Your task to perform on an android device: check google app version Image 0: 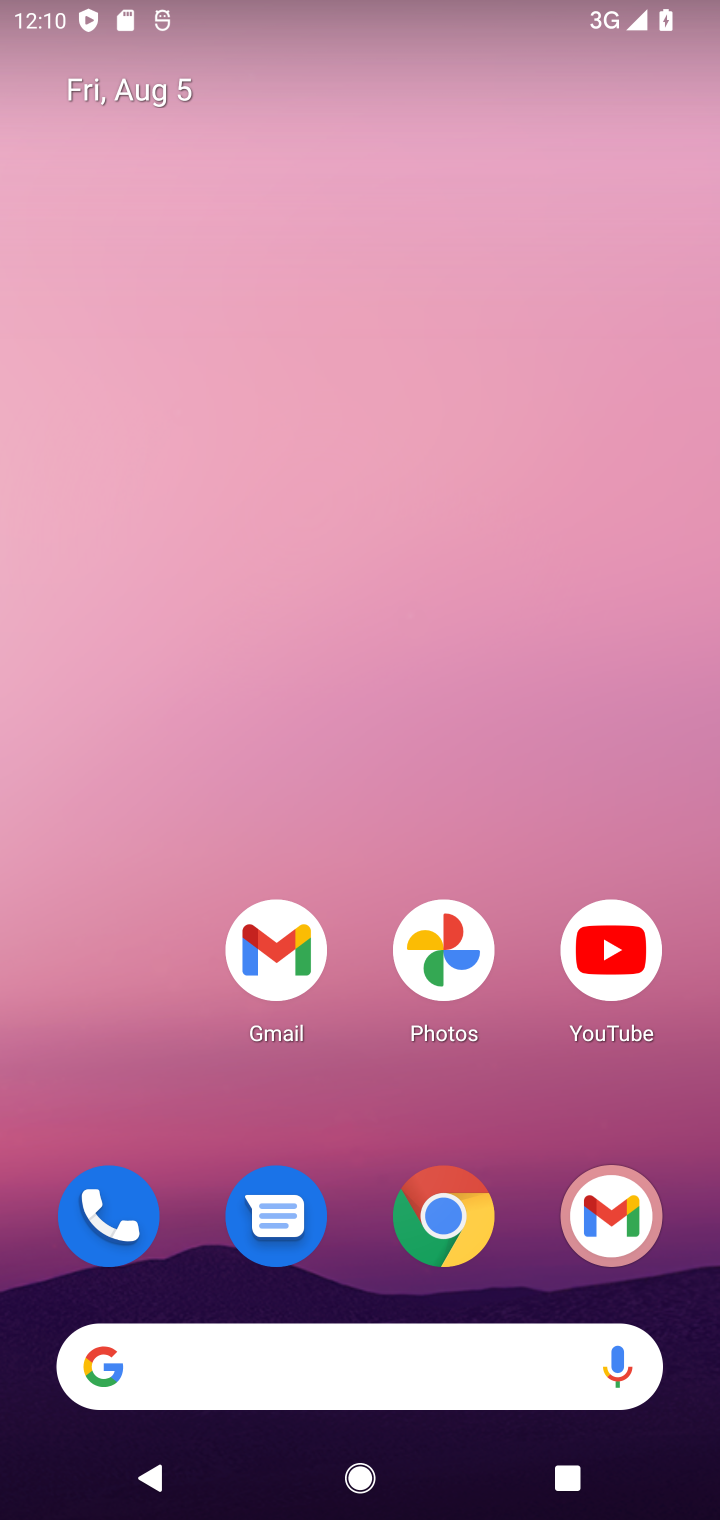
Step 0: drag from (418, 1345) to (326, 24)
Your task to perform on an android device: check google app version Image 1: 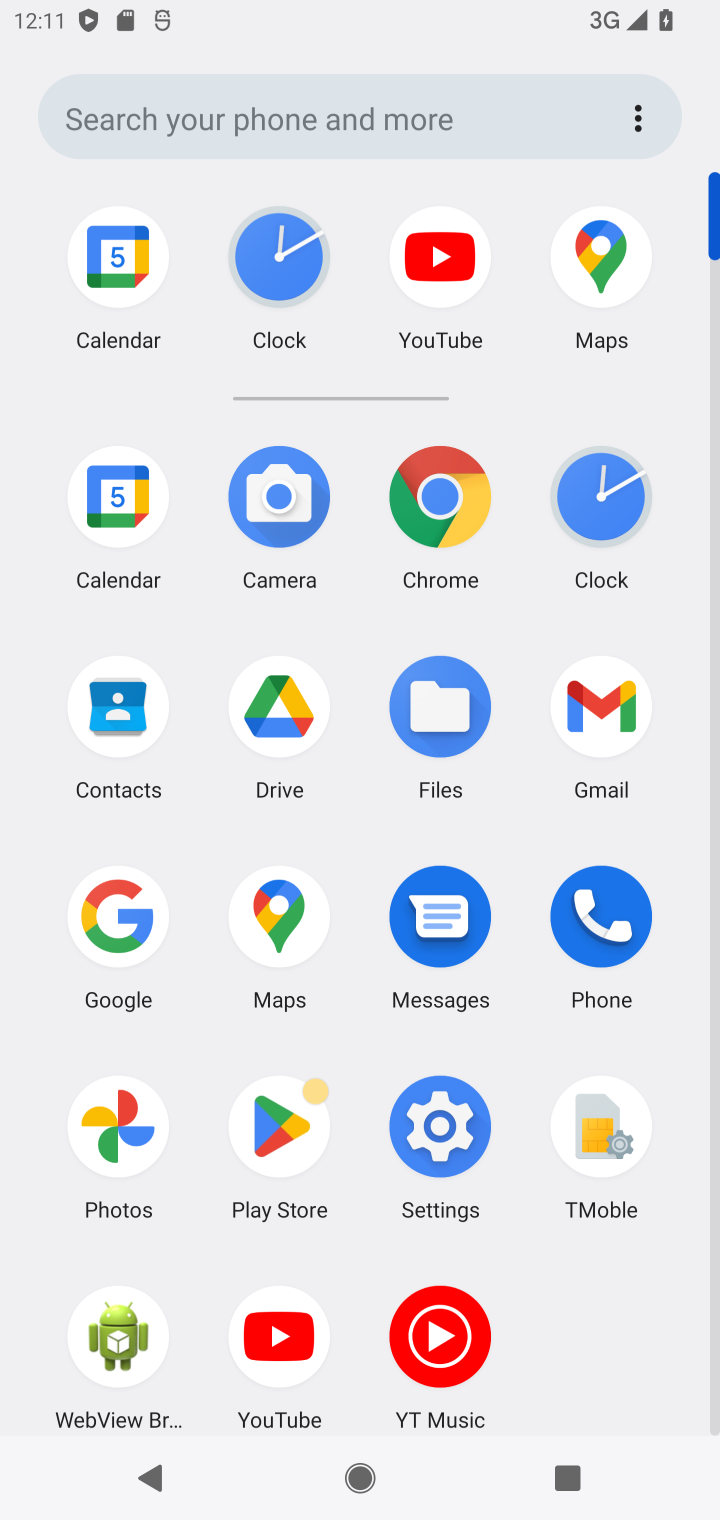
Step 1: click (473, 525)
Your task to perform on an android device: check google app version Image 2: 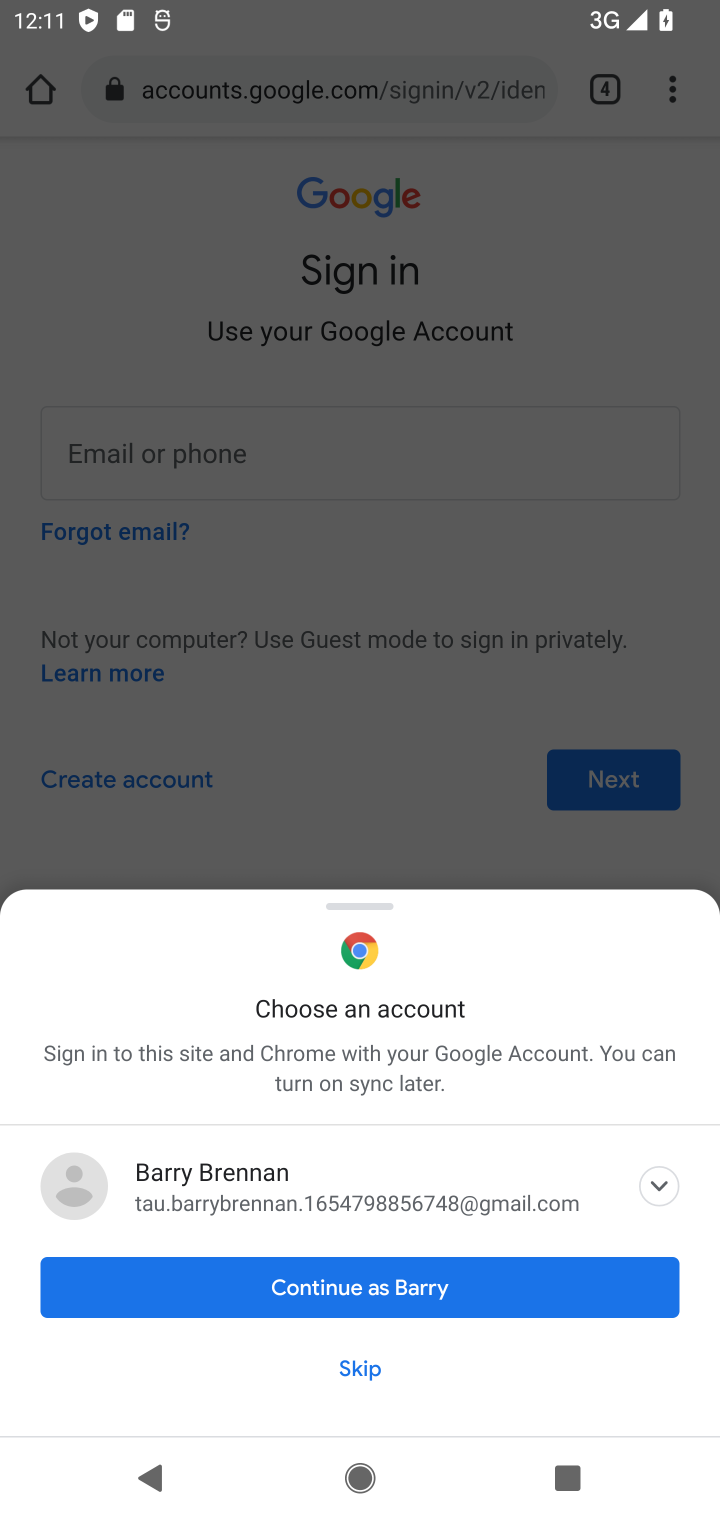
Step 2: click (368, 1358)
Your task to perform on an android device: check google app version Image 3: 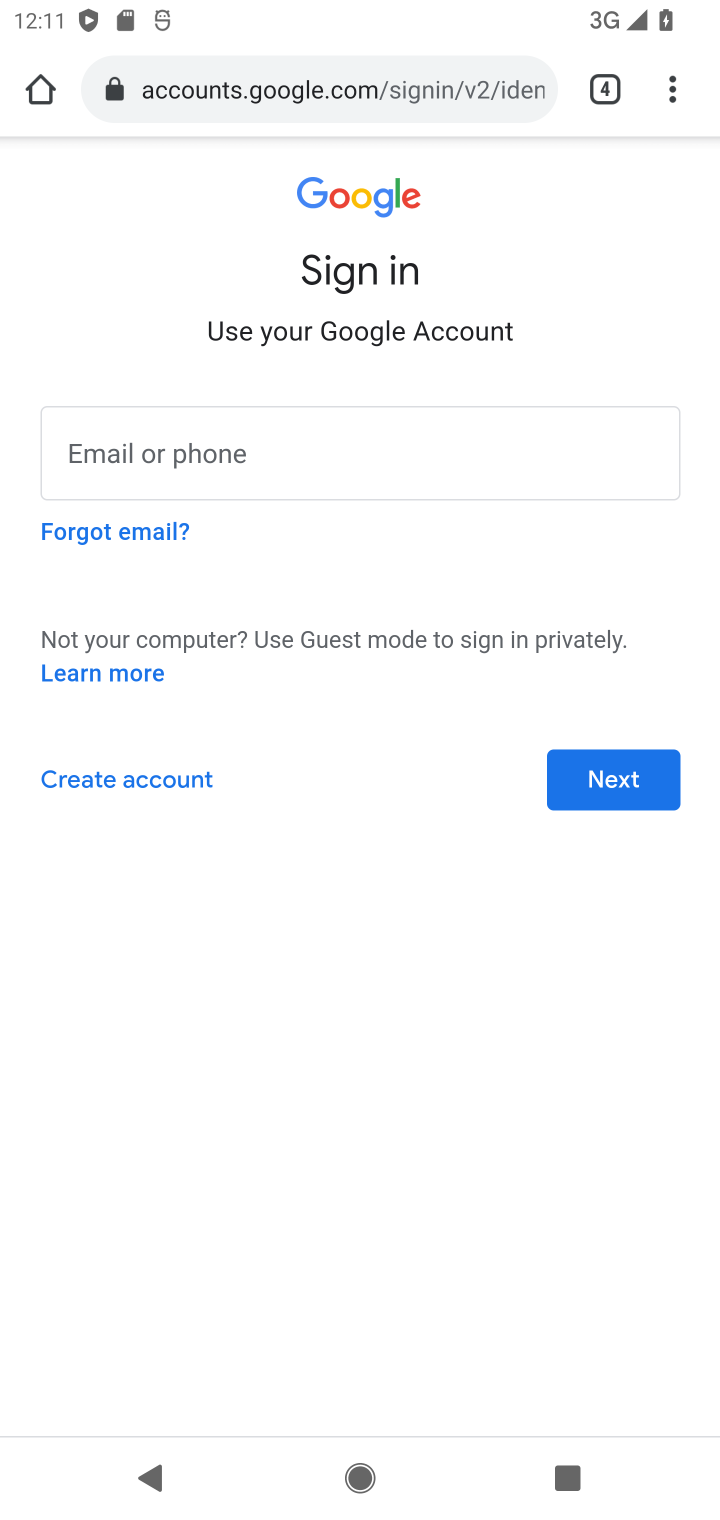
Step 3: click (665, 92)
Your task to perform on an android device: check google app version Image 4: 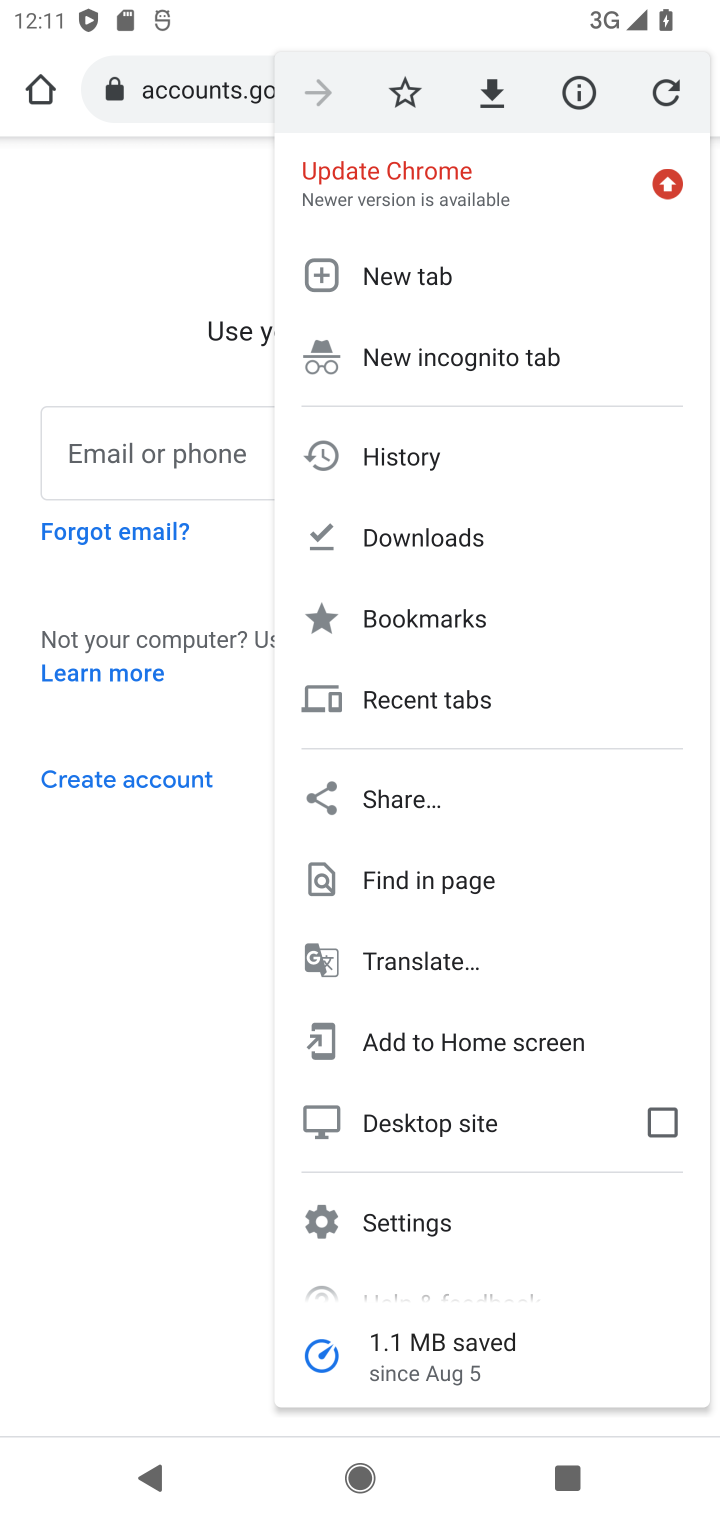
Step 4: drag from (639, 1217) to (659, 748)
Your task to perform on an android device: check google app version Image 5: 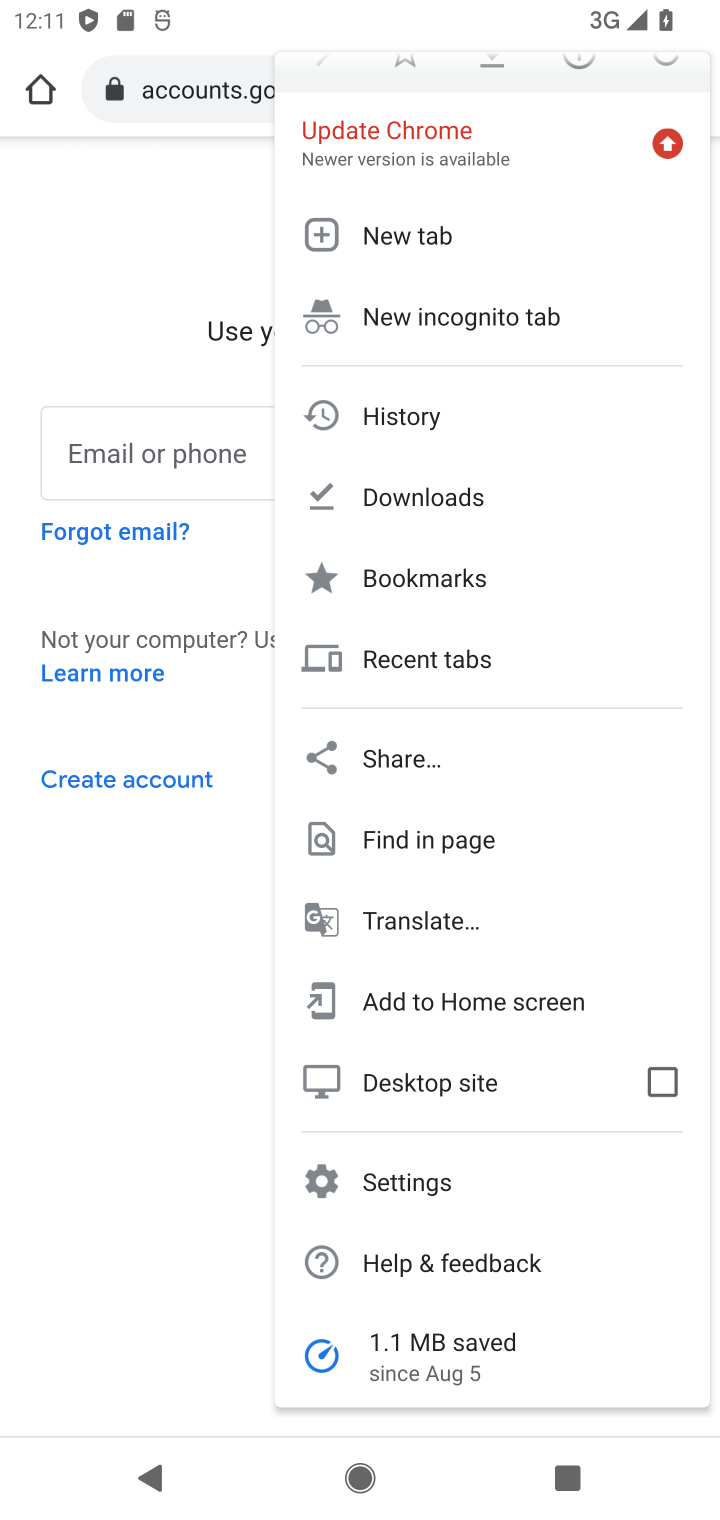
Step 5: click (451, 1255)
Your task to perform on an android device: check google app version Image 6: 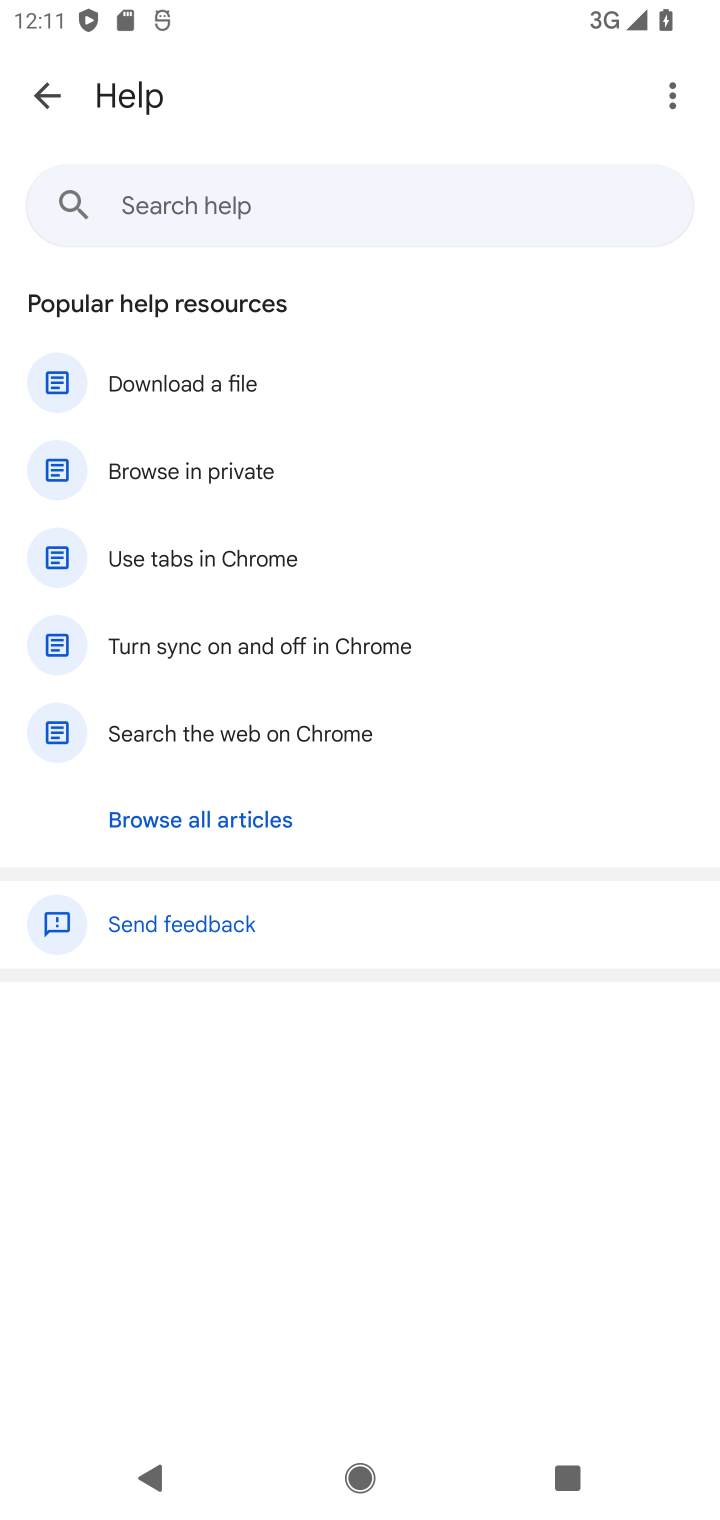
Step 6: click (667, 88)
Your task to perform on an android device: check google app version Image 7: 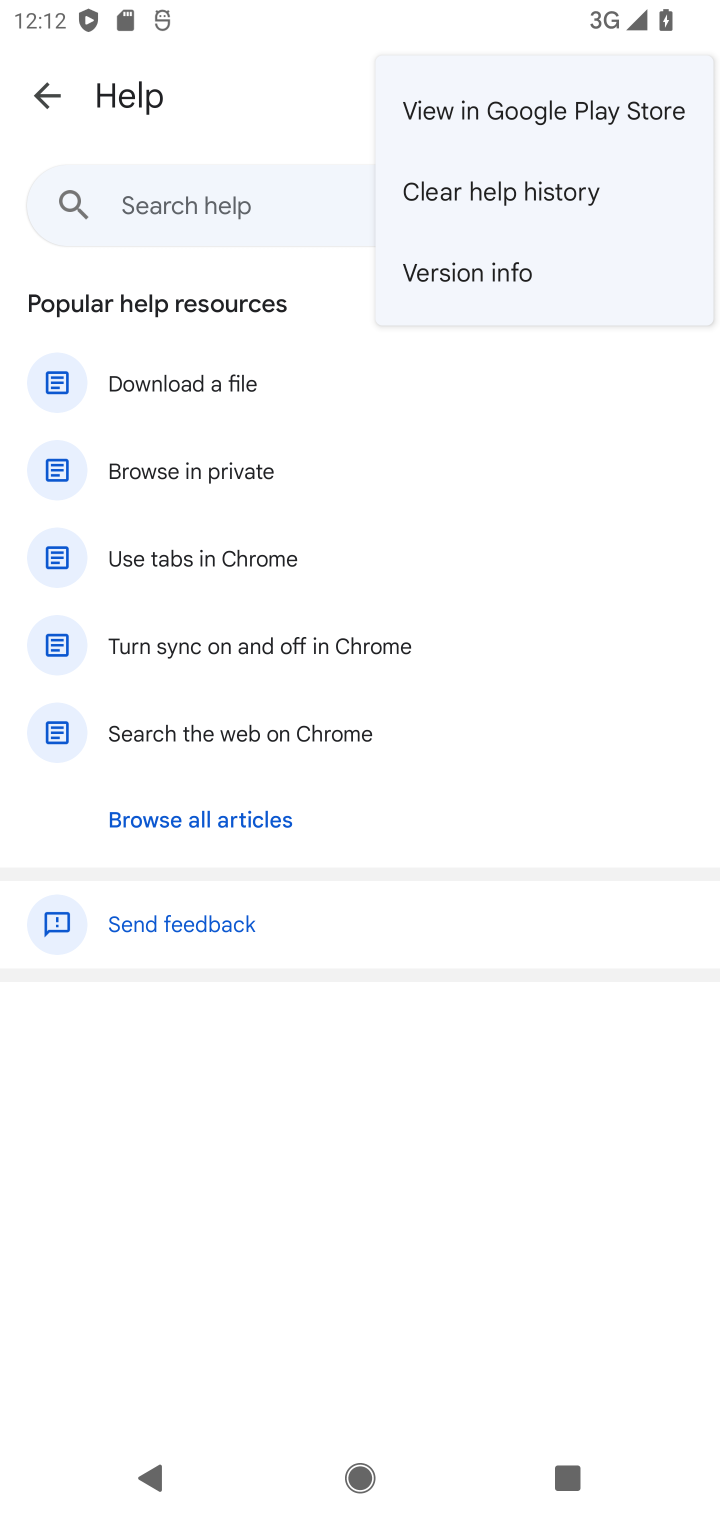
Step 7: click (482, 274)
Your task to perform on an android device: check google app version Image 8: 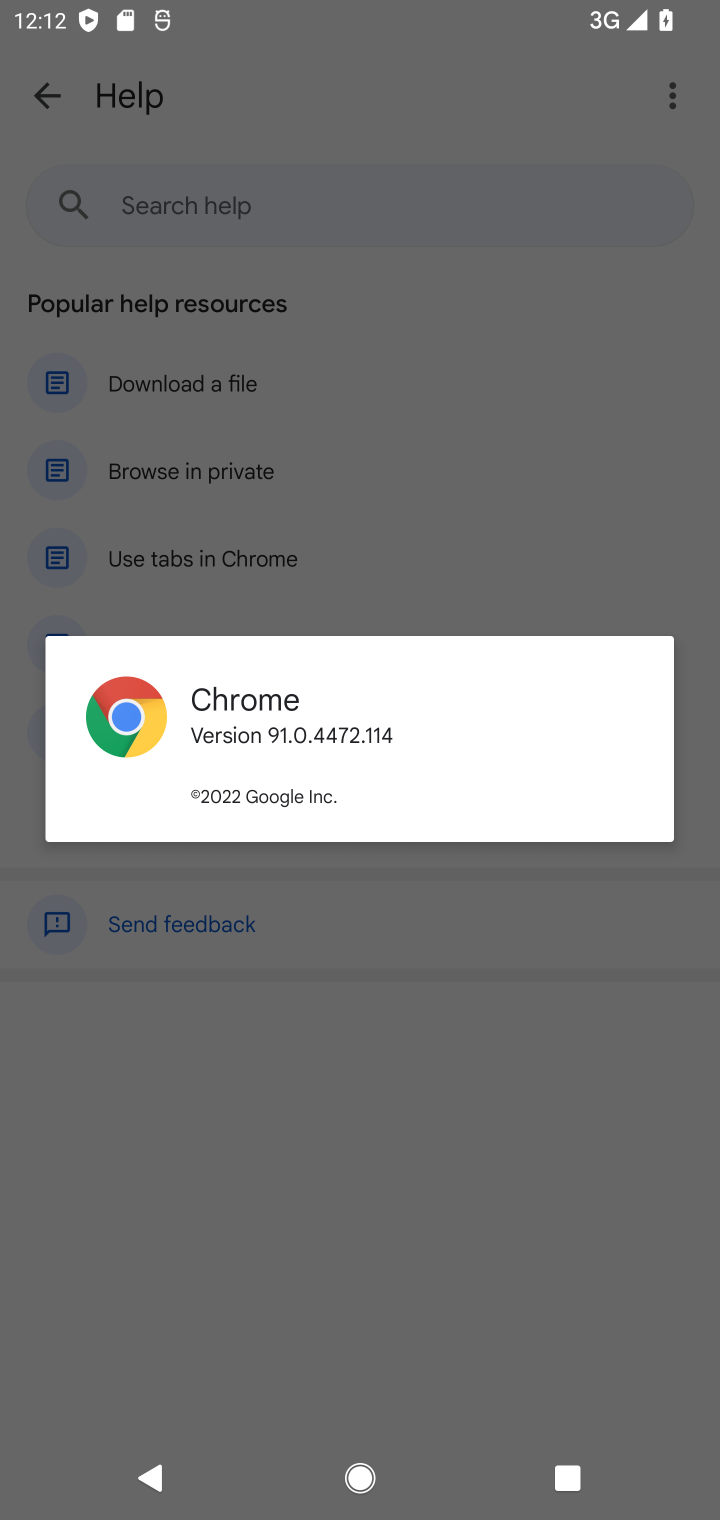
Step 8: task complete